Your task to perform on an android device: Open ESPN.com Image 0: 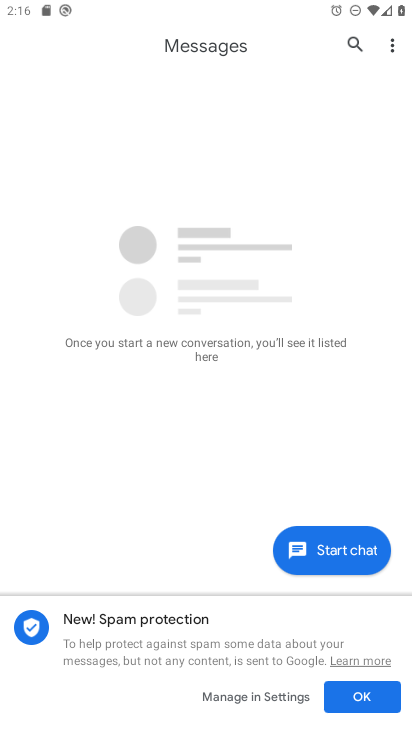
Step 0: press home button
Your task to perform on an android device: Open ESPN.com Image 1: 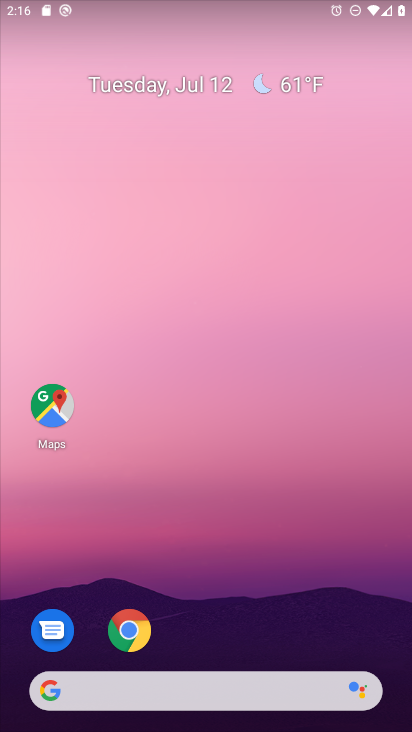
Step 1: click (138, 643)
Your task to perform on an android device: Open ESPN.com Image 2: 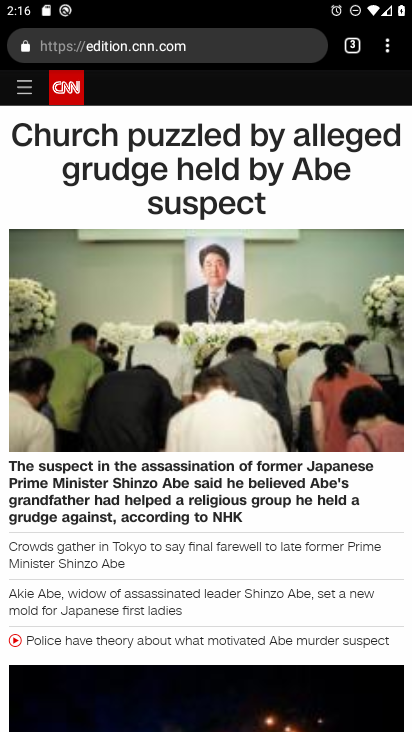
Step 2: click (356, 54)
Your task to perform on an android device: Open ESPN.com Image 3: 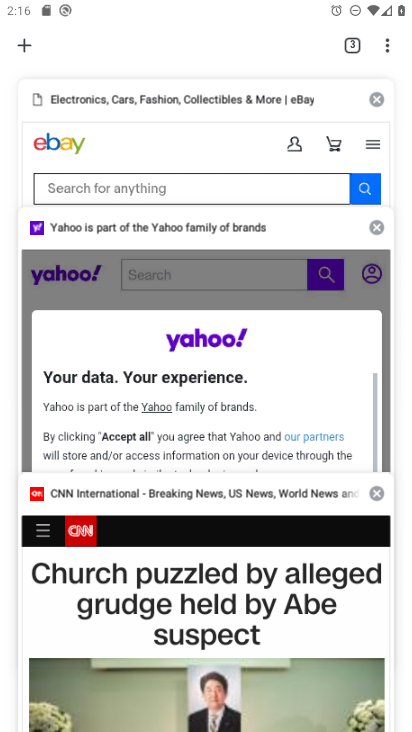
Step 3: click (24, 40)
Your task to perform on an android device: Open ESPN.com Image 4: 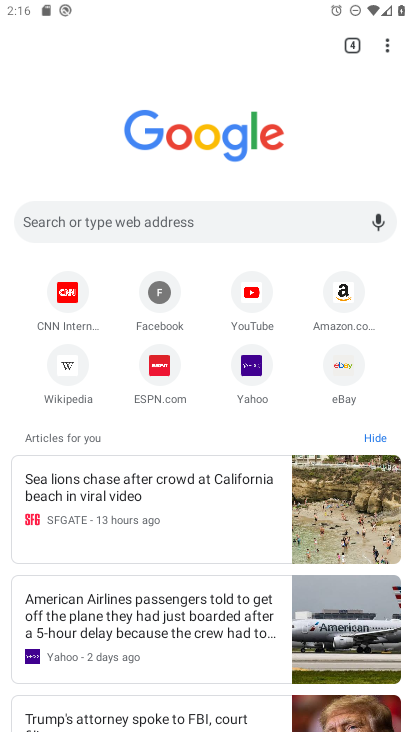
Step 4: click (155, 378)
Your task to perform on an android device: Open ESPN.com Image 5: 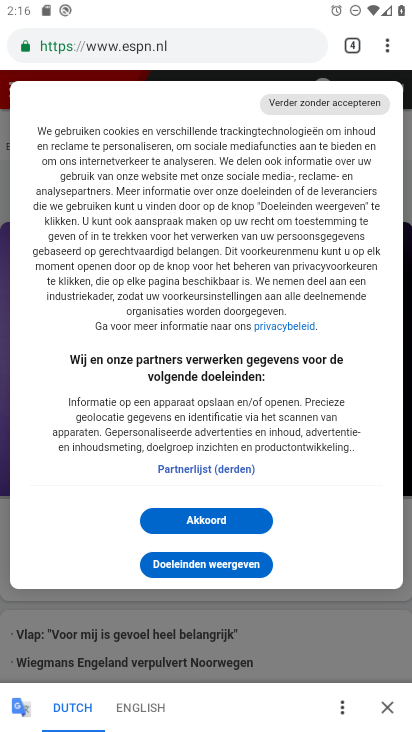
Step 5: task complete